Your task to perform on an android device: read, delete, or share a saved page in the chrome app Image 0: 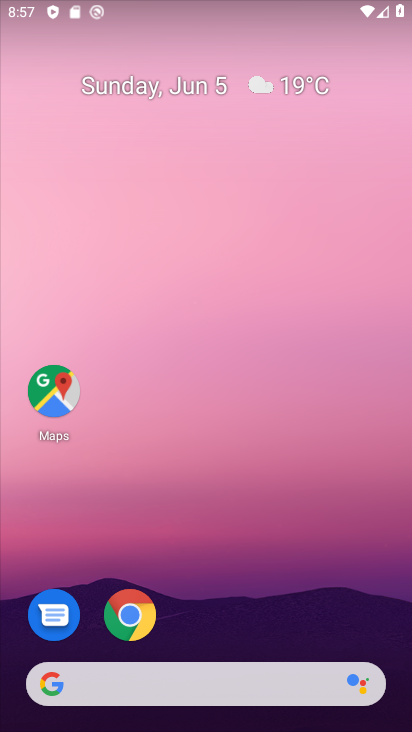
Step 0: click (118, 630)
Your task to perform on an android device: read, delete, or share a saved page in the chrome app Image 1: 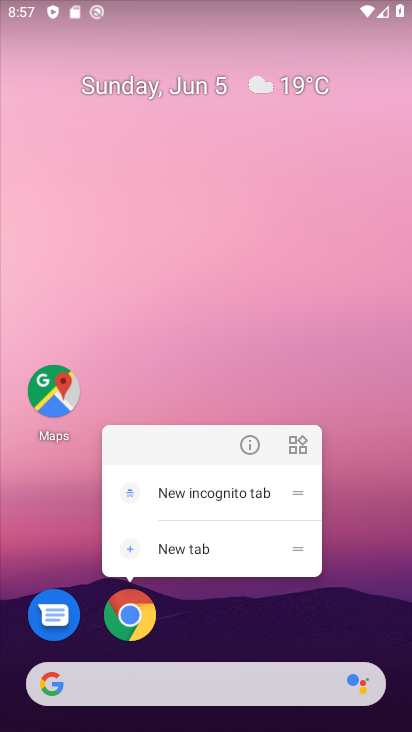
Step 1: click (150, 626)
Your task to perform on an android device: read, delete, or share a saved page in the chrome app Image 2: 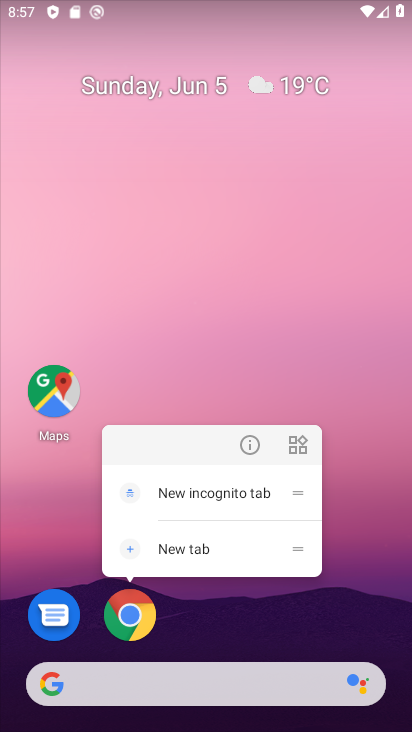
Step 2: click (144, 624)
Your task to perform on an android device: read, delete, or share a saved page in the chrome app Image 3: 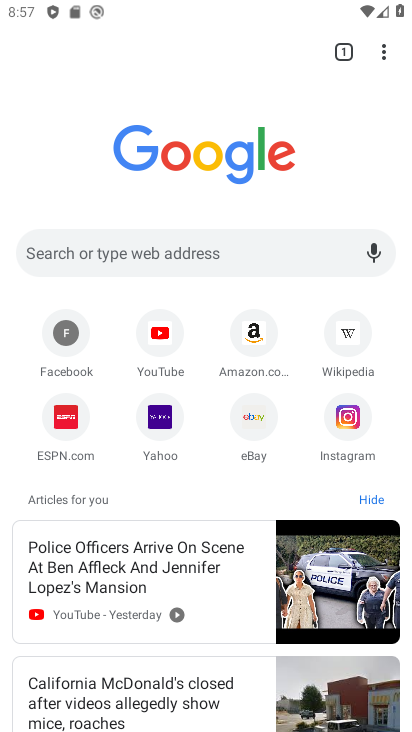
Step 3: drag from (391, 55) to (294, 350)
Your task to perform on an android device: read, delete, or share a saved page in the chrome app Image 4: 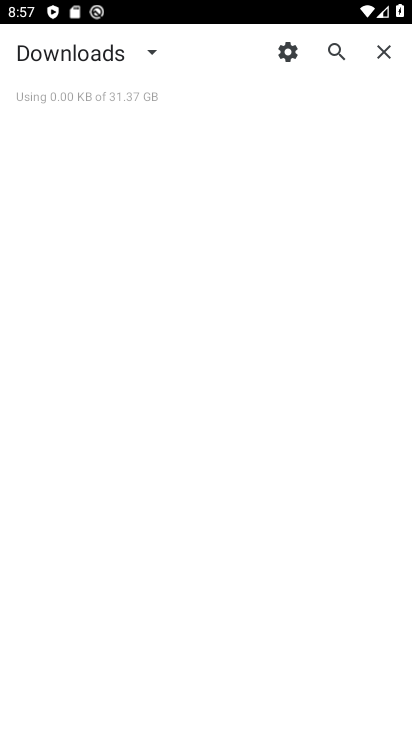
Step 4: click (134, 72)
Your task to perform on an android device: read, delete, or share a saved page in the chrome app Image 5: 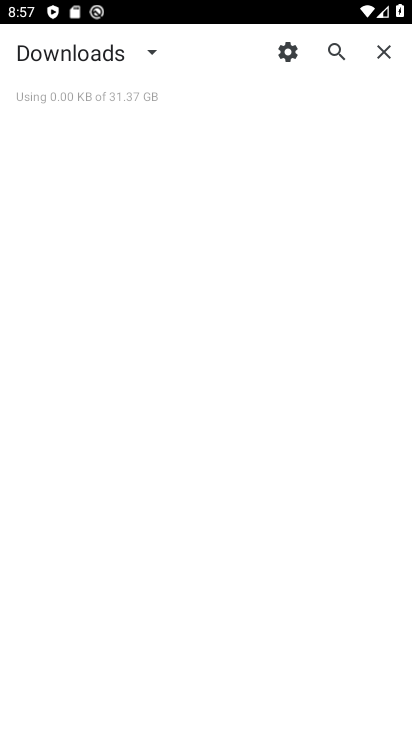
Step 5: click (142, 58)
Your task to perform on an android device: read, delete, or share a saved page in the chrome app Image 6: 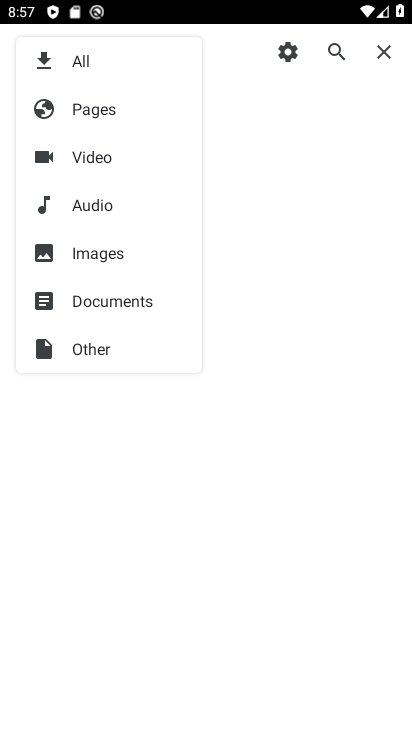
Step 6: click (111, 116)
Your task to perform on an android device: read, delete, or share a saved page in the chrome app Image 7: 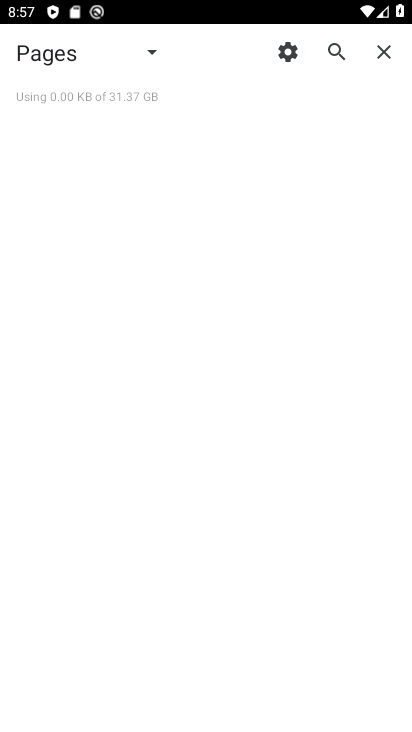
Step 7: task complete